Your task to perform on an android device: Show me the alarms in the clock app Image 0: 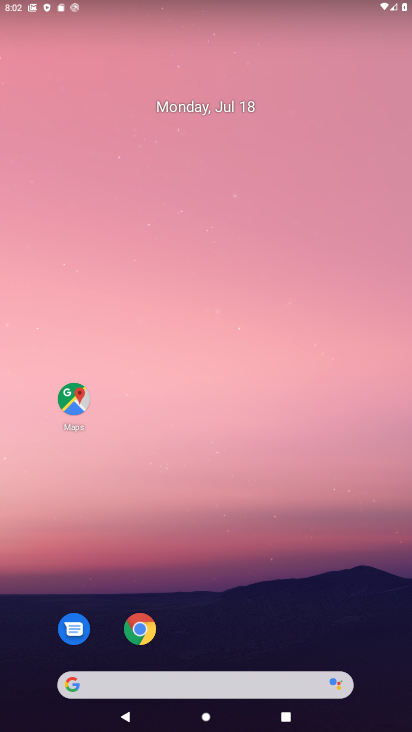
Step 0: drag from (232, 649) to (271, 45)
Your task to perform on an android device: Show me the alarms in the clock app Image 1: 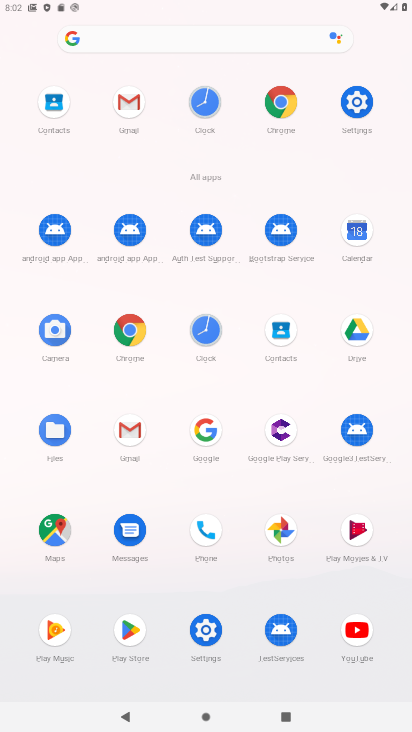
Step 1: click (197, 339)
Your task to perform on an android device: Show me the alarms in the clock app Image 2: 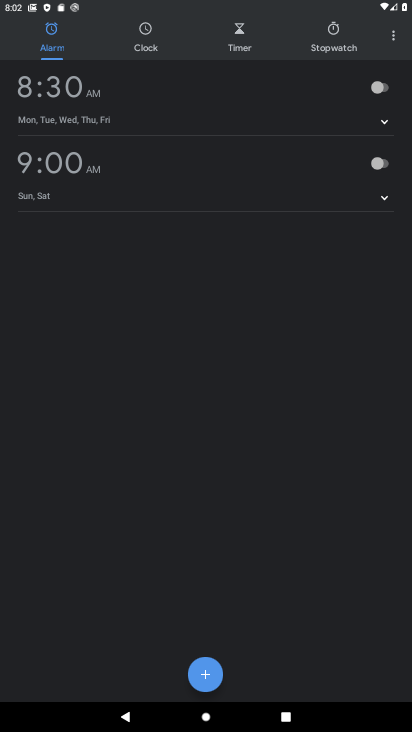
Step 2: task complete